Your task to perform on an android device: Open accessibility settings Image 0: 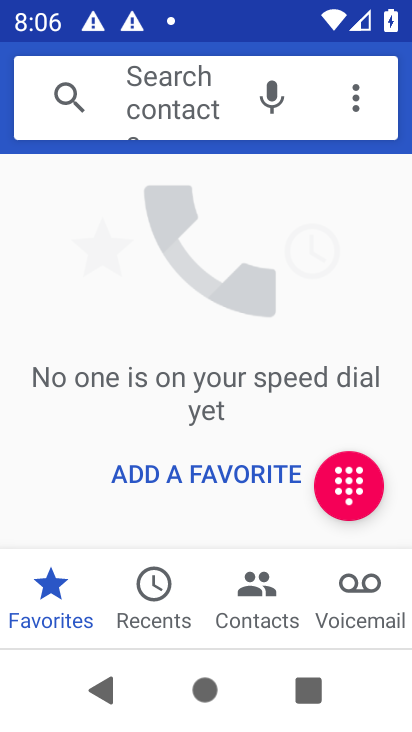
Step 0: press home button
Your task to perform on an android device: Open accessibility settings Image 1: 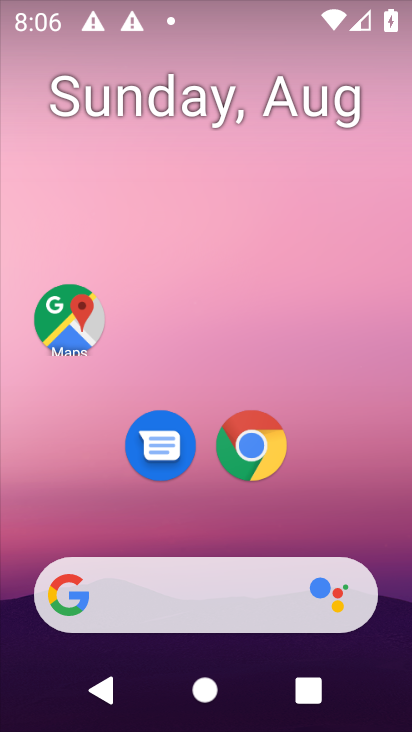
Step 1: drag from (197, 517) to (203, 0)
Your task to perform on an android device: Open accessibility settings Image 2: 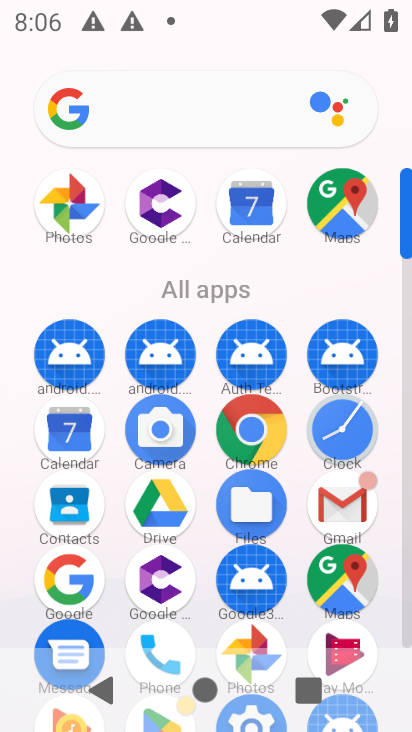
Step 2: drag from (199, 537) to (212, 133)
Your task to perform on an android device: Open accessibility settings Image 3: 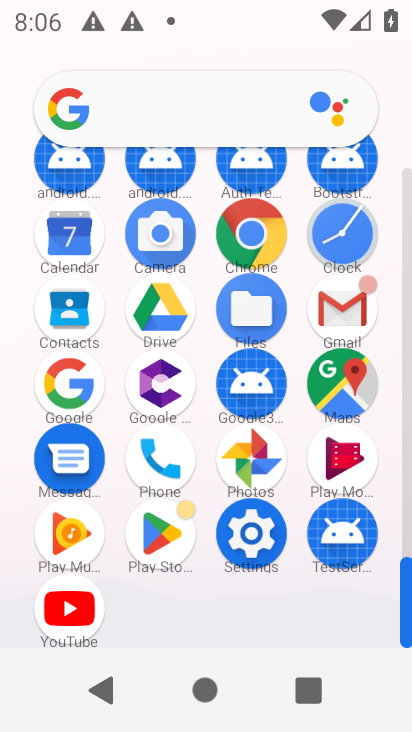
Step 3: click (247, 527)
Your task to perform on an android device: Open accessibility settings Image 4: 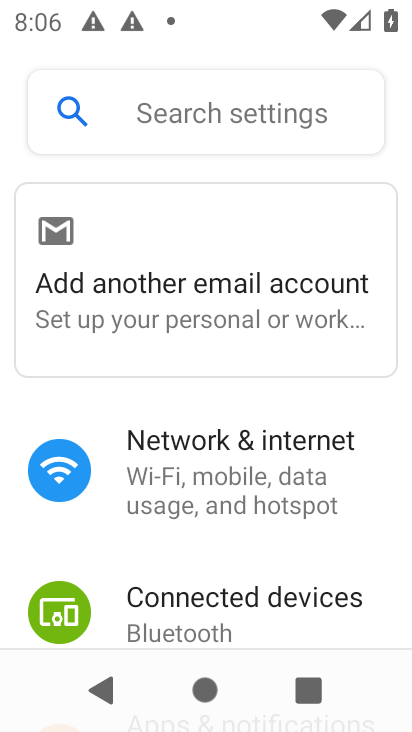
Step 4: drag from (223, 570) to (223, 102)
Your task to perform on an android device: Open accessibility settings Image 5: 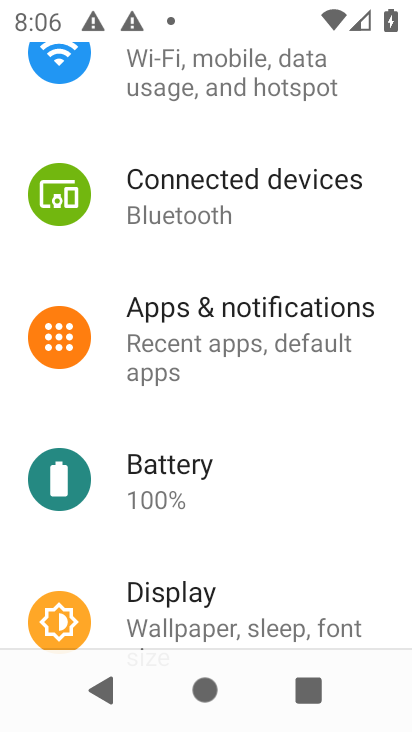
Step 5: drag from (232, 597) to (227, 105)
Your task to perform on an android device: Open accessibility settings Image 6: 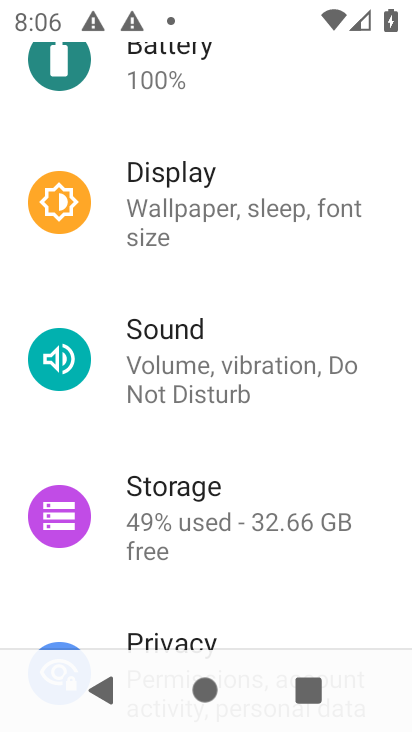
Step 6: drag from (217, 604) to (227, 94)
Your task to perform on an android device: Open accessibility settings Image 7: 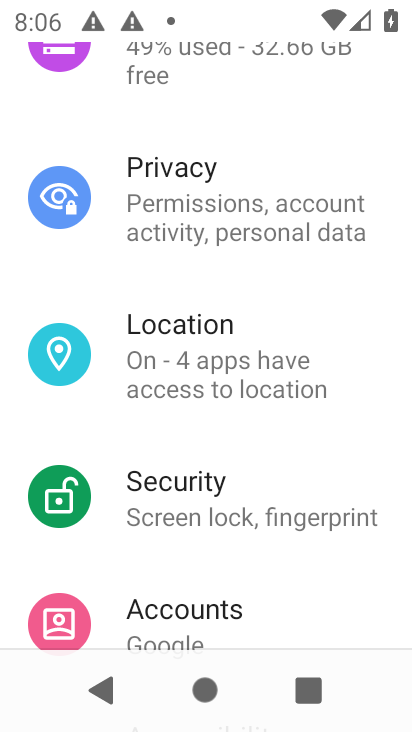
Step 7: drag from (251, 611) to (259, 25)
Your task to perform on an android device: Open accessibility settings Image 8: 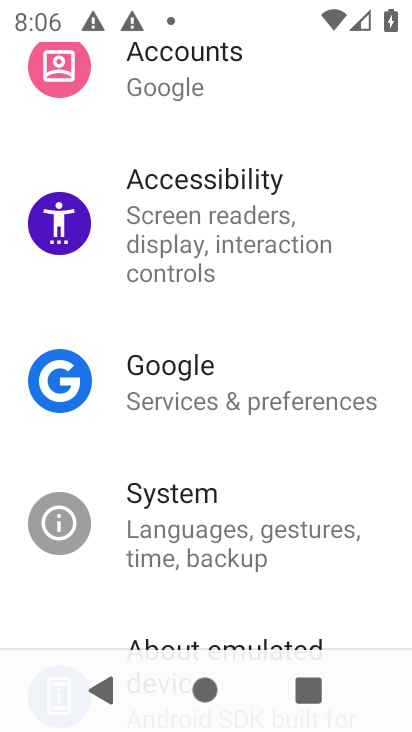
Step 8: click (302, 193)
Your task to perform on an android device: Open accessibility settings Image 9: 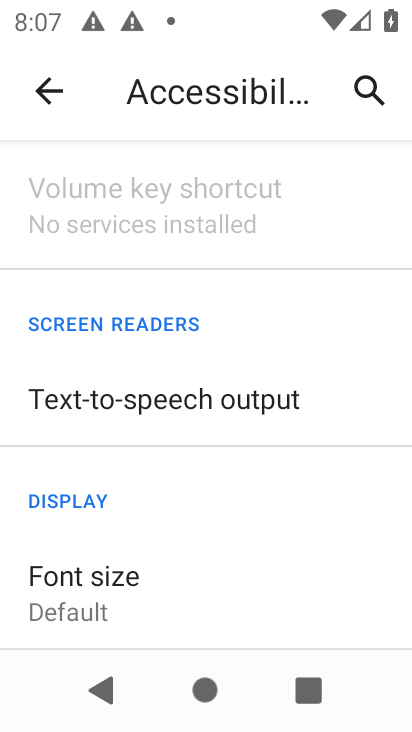
Step 9: task complete